Your task to perform on an android device: find snoozed emails in the gmail app Image 0: 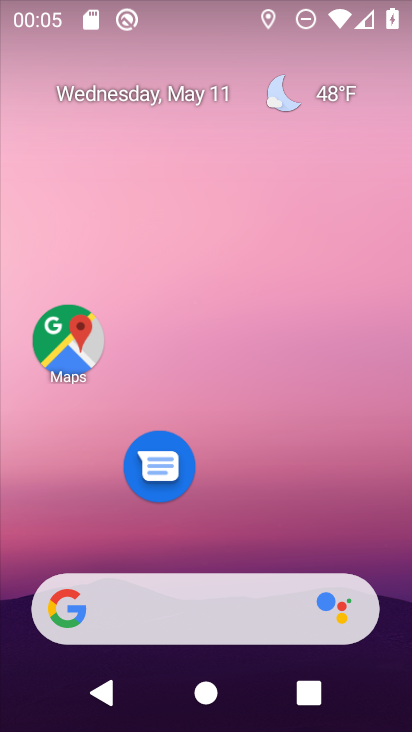
Step 0: drag from (248, 553) to (241, 67)
Your task to perform on an android device: find snoozed emails in the gmail app Image 1: 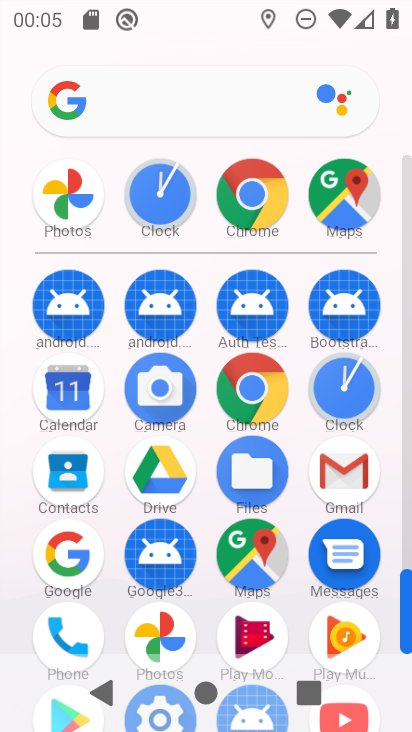
Step 1: click (356, 471)
Your task to perform on an android device: find snoozed emails in the gmail app Image 2: 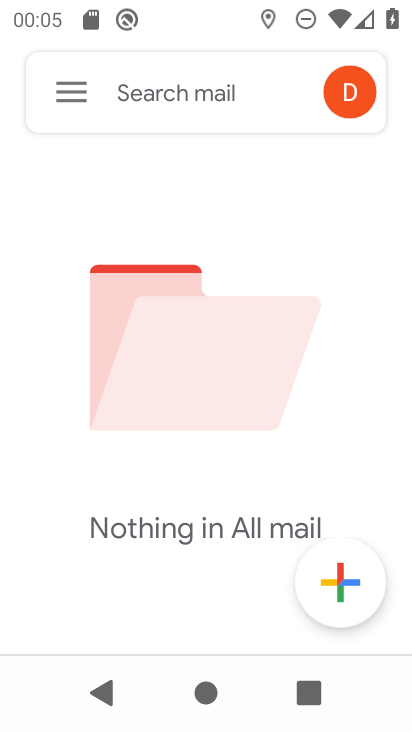
Step 2: click (85, 104)
Your task to perform on an android device: find snoozed emails in the gmail app Image 3: 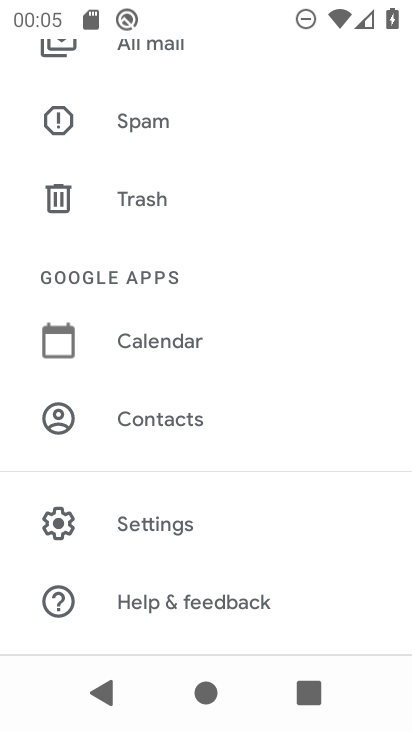
Step 3: drag from (147, 150) to (221, 499)
Your task to perform on an android device: find snoozed emails in the gmail app Image 4: 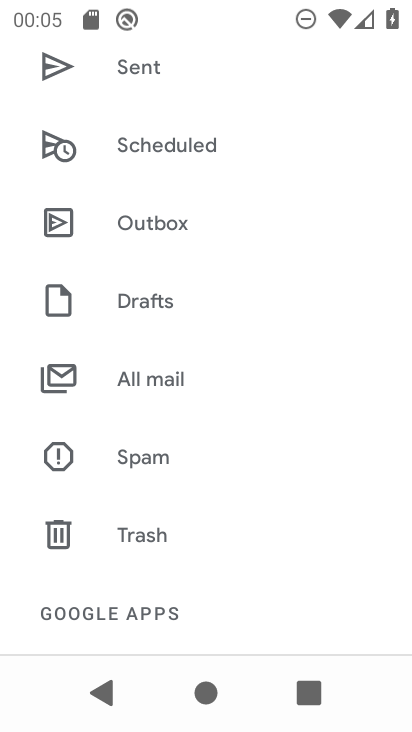
Step 4: drag from (218, 205) to (209, 436)
Your task to perform on an android device: find snoozed emails in the gmail app Image 5: 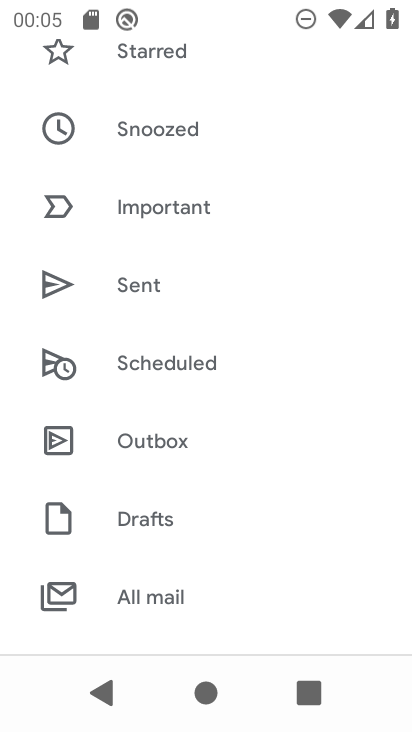
Step 5: drag from (143, 220) to (148, 475)
Your task to perform on an android device: find snoozed emails in the gmail app Image 6: 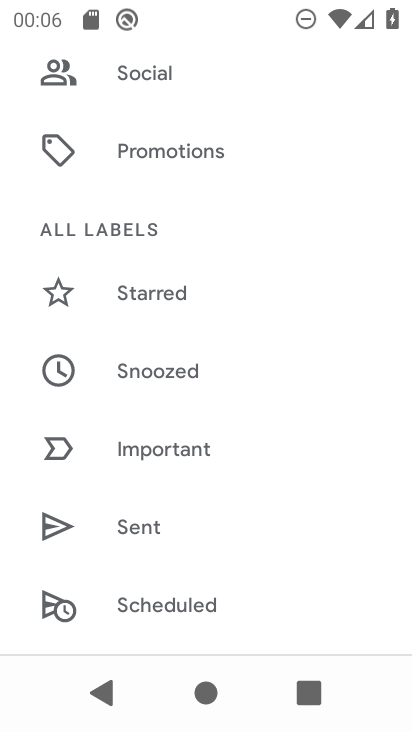
Step 6: click (130, 362)
Your task to perform on an android device: find snoozed emails in the gmail app Image 7: 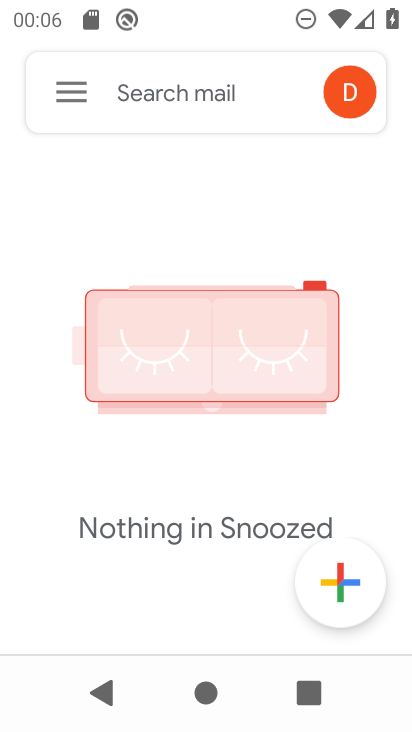
Step 7: task complete